Your task to perform on an android device: Open privacy settings Image 0: 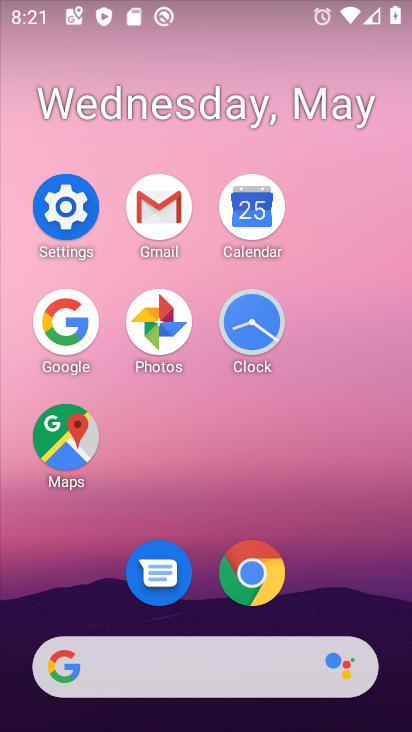
Step 0: click (94, 185)
Your task to perform on an android device: Open privacy settings Image 1: 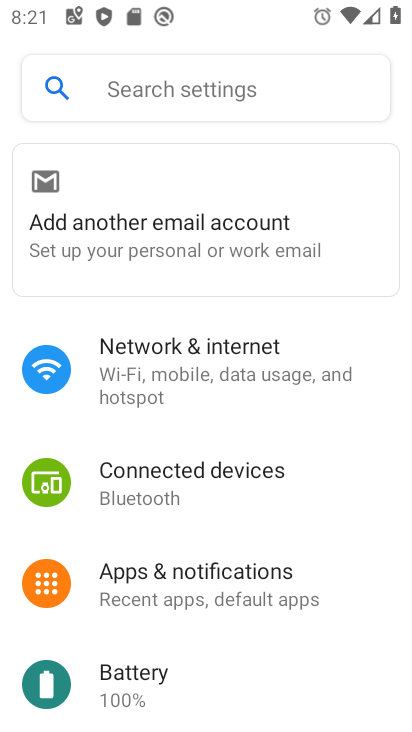
Step 1: drag from (201, 614) to (209, 321)
Your task to perform on an android device: Open privacy settings Image 2: 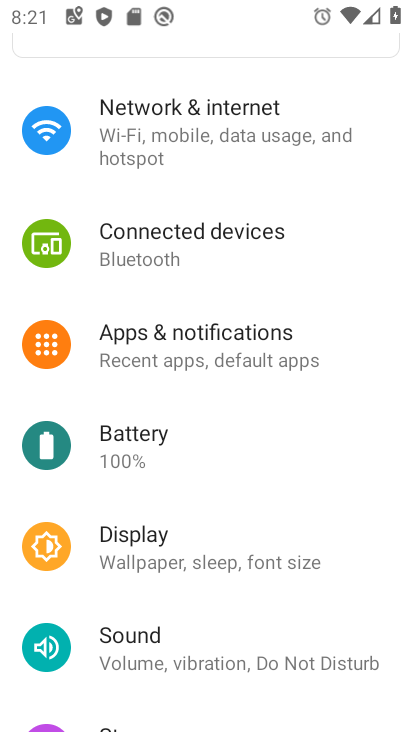
Step 2: drag from (226, 609) to (201, 211)
Your task to perform on an android device: Open privacy settings Image 3: 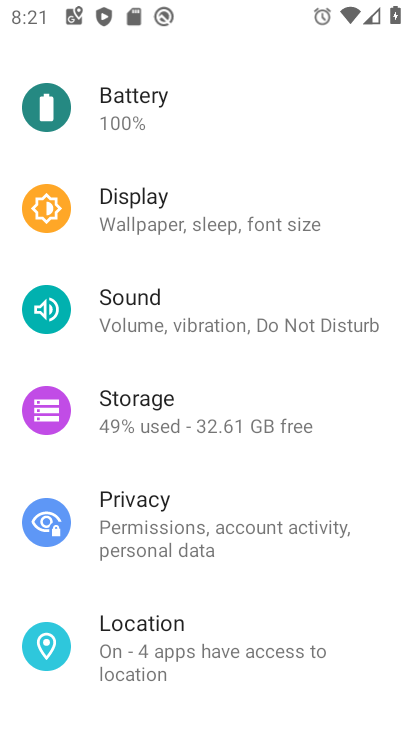
Step 3: click (168, 510)
Your task to perform on an android device: Open privacy settings Image 4: 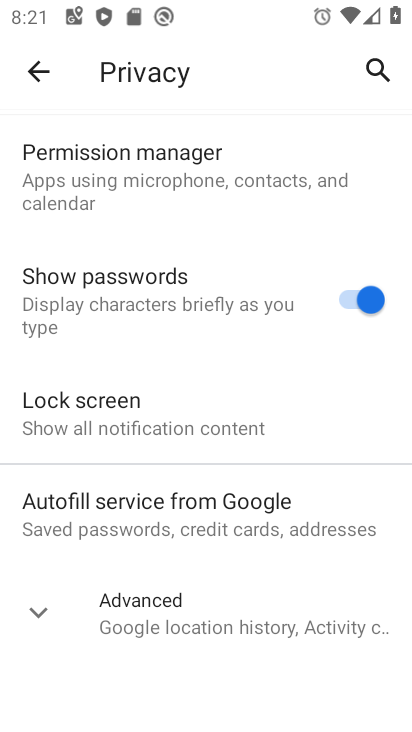
Step 4: task complete